Your task to perform on an android device: turn off wifi Image 0: 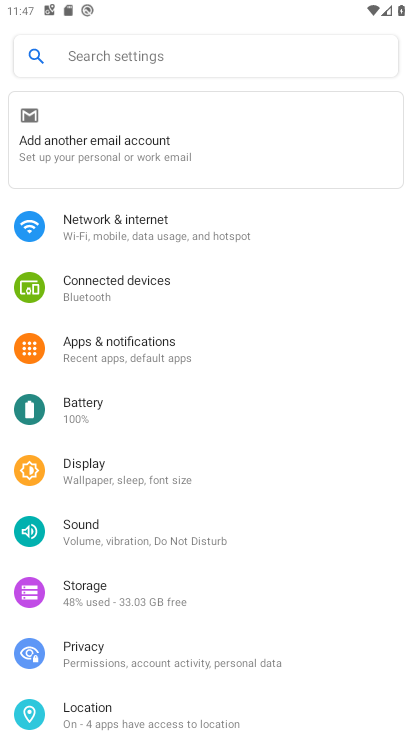
Step 0: click (85, 219)
Your task to perform on an android device: turn off wifi Image 1: 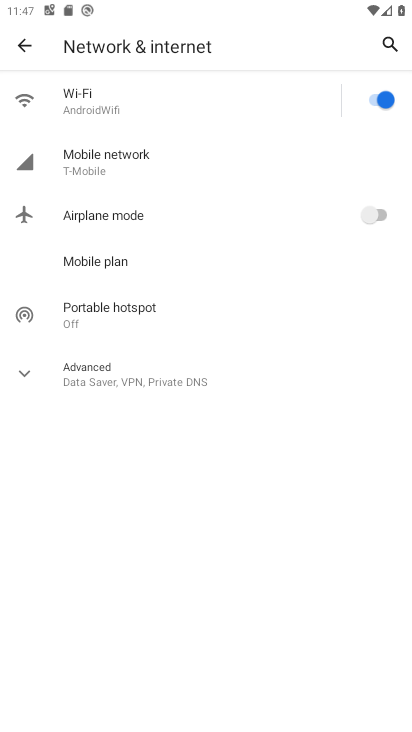
Step 1: click (372, 98)
Your task to perform on an android device: turn off wifi Image 2: 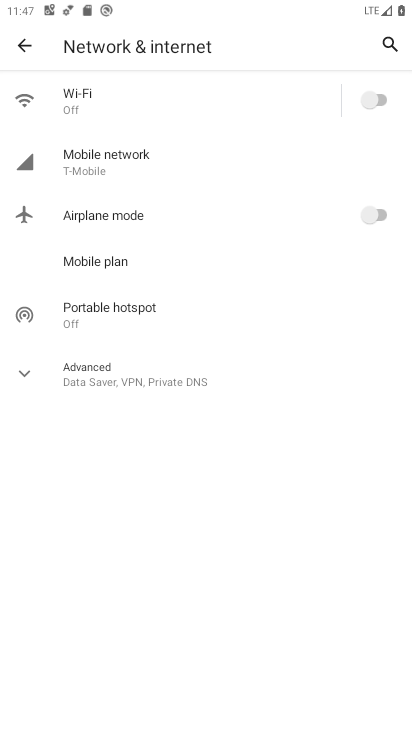
Step 2: task complete